Your task to perform on an android device: empty trash in google photos Image 0: 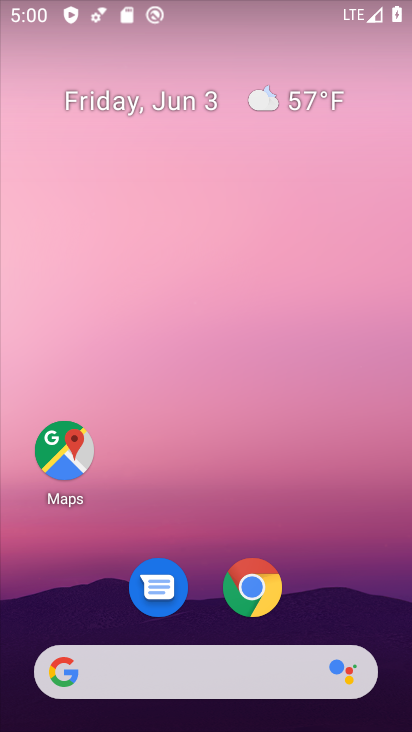
Step 0: press home button
Your task to perform on an android device: empty trash in google photos Image 1: 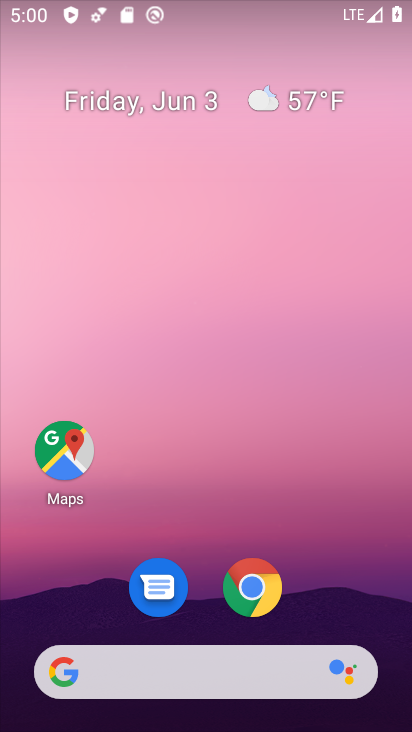
Step 1: drag from (194, 618) to (153, 166)
Your task to perform on an android device: empty trash in google photos Image 2: 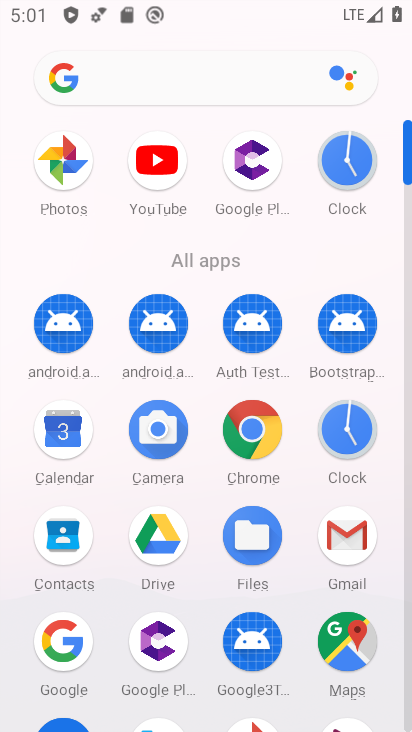
Step 2: click (71, 153)
Your task to perform on an android device: empty trash in google photos Image 3: 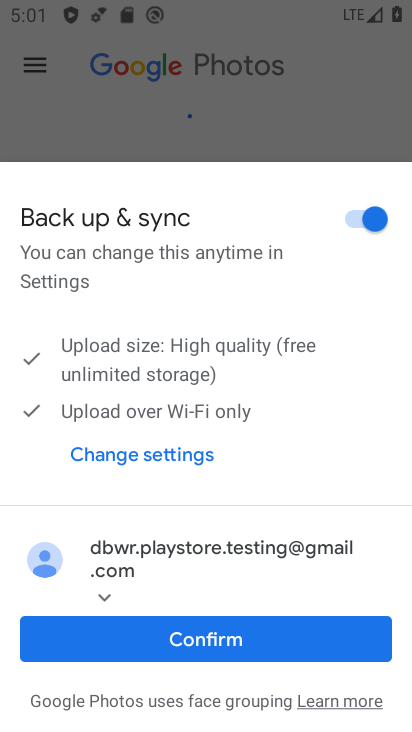
Step 3: click (244, 643)
Your task to perform on an android device: empty trash in google photos Image 4: 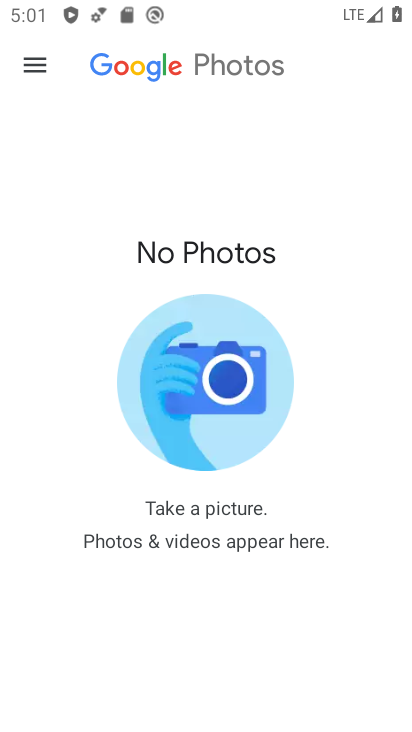
Step 4: click (52, 80)
Your task to perform on an android device: empty trash in google photos Image 5: 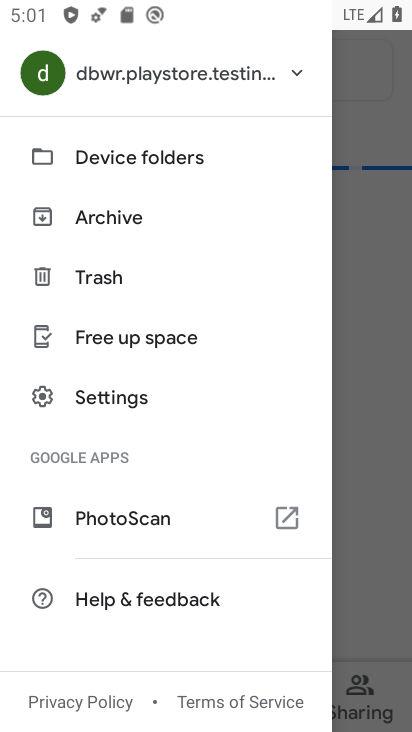
Step 5: click (105, 271)
Your task to perform on an android device: empty trash in google photos Image 6: 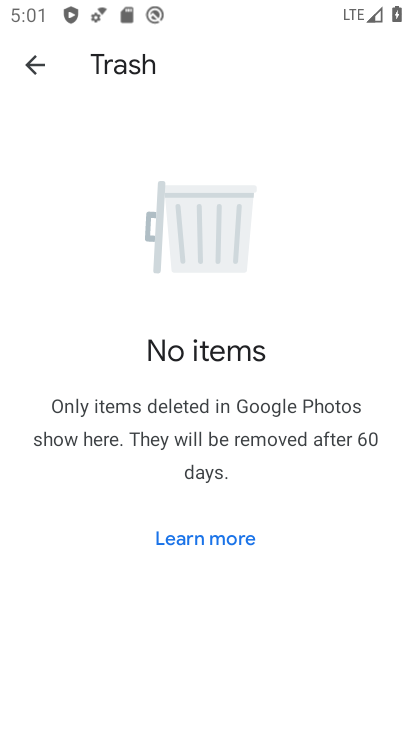
Step 6: task complete